Your task to perform on an android device: stop showing notifications on the lock screen Image 0: 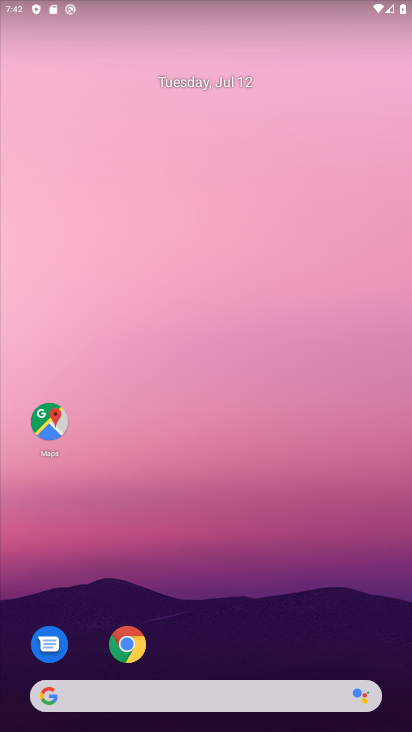
Step 0: drag from (196, 663) to (183, 59)
Your task to perform on an android device: stop showing notifications on the lock screen Image 1: 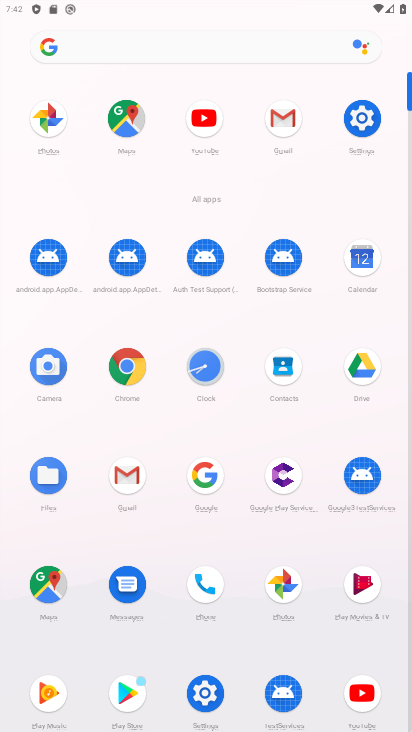
Step 1: click (349, 116)
Your task to perform on an android device: stop showing notifications on the lock screen Image 2: 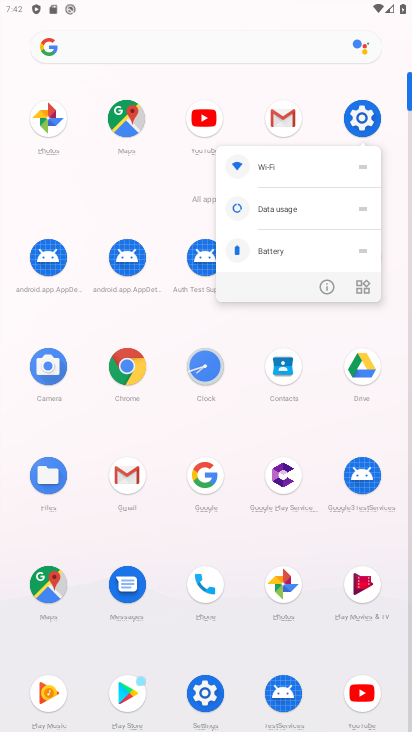
Step 2: click (331, 289)
Your task to perform on an android device: stop showing notifications on the lock screen Image 3: 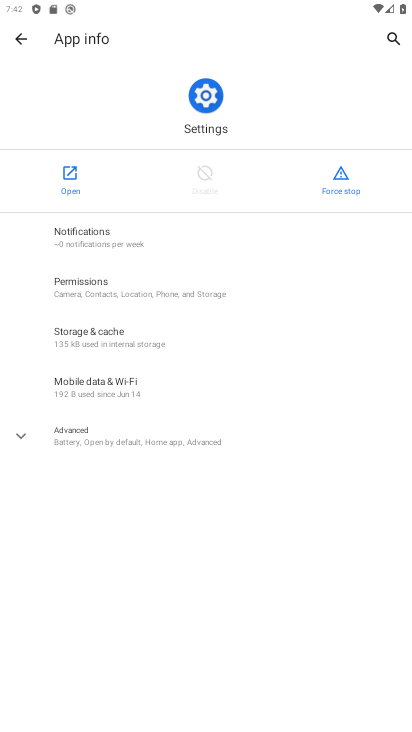
Step 3: click (73, 177)
Your task to perform on an android device: stop showing notifications on the lock screen Image 4: 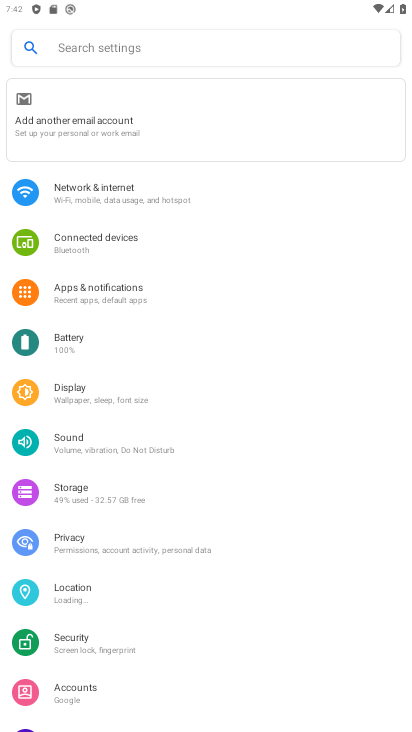
Step 4: click (98, 293)
Your task to perform on an android device: stop showing notifications on the lock screen Image 5: 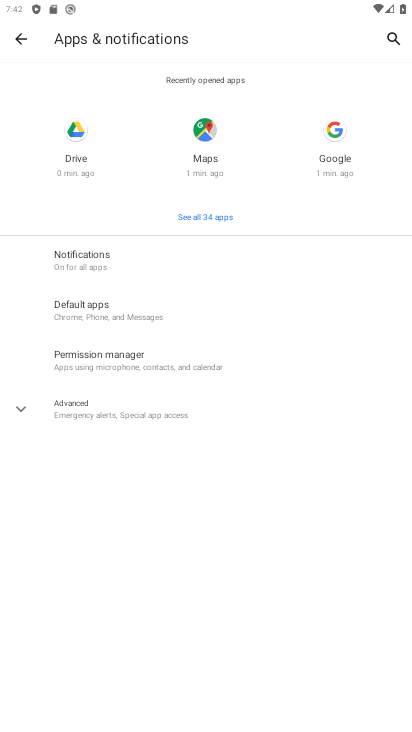
Step 5: click (145, 265)
Your task to perform on an android device: stop showing notifications on the lock screen Image 6: 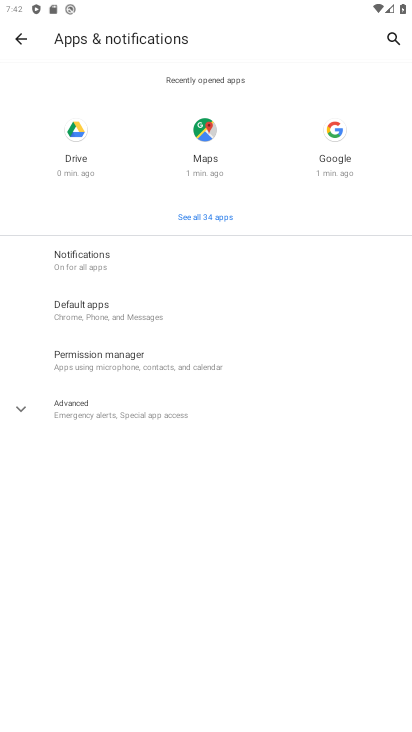
Step 6: click (144, 264)
Your task to perform on an android device: stop showing notifications on the lock screen Image 7: 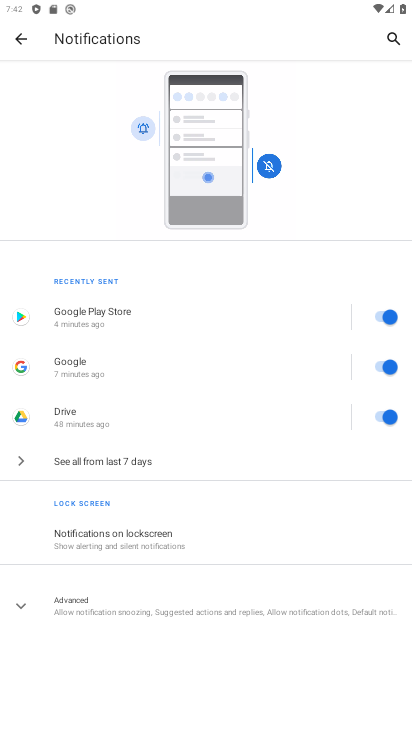
Step 7: click (161, 536)
Your task to perform on an android device: stop showing notifications on the lock screen Image 8: 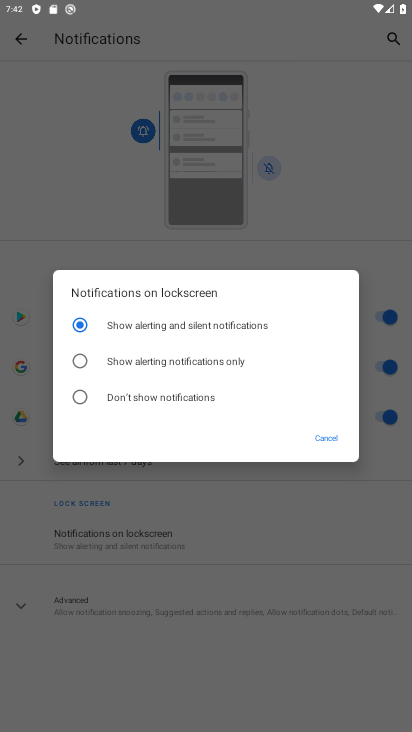
Step 8: click (160, 362)
Your task to perform on an android device: stop showing notifications on the lock screen Image 9: 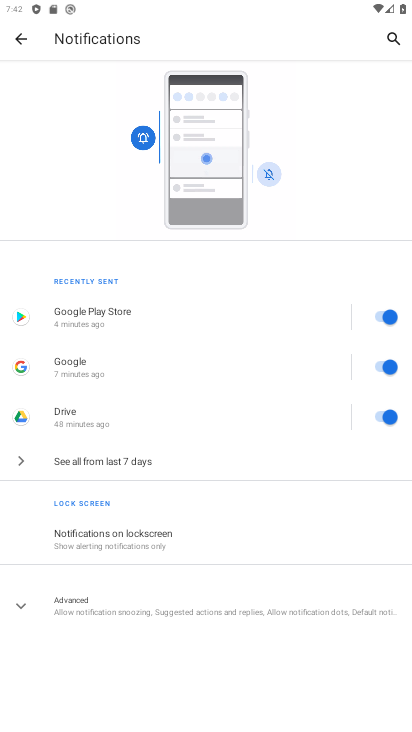
Step 9: task complete